Your task to perform on an android device: Go to Yahoo.com Image 0: 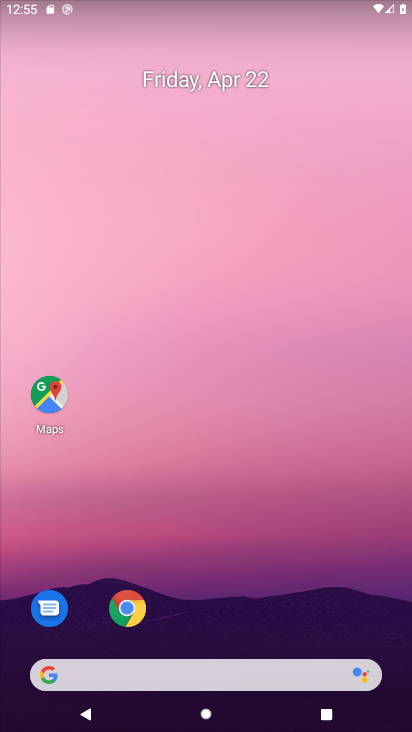
Step 0: drag from (251, 600) to (217, 117)
Your task to perform on an android device: Go to Yahoo.com Image 1: 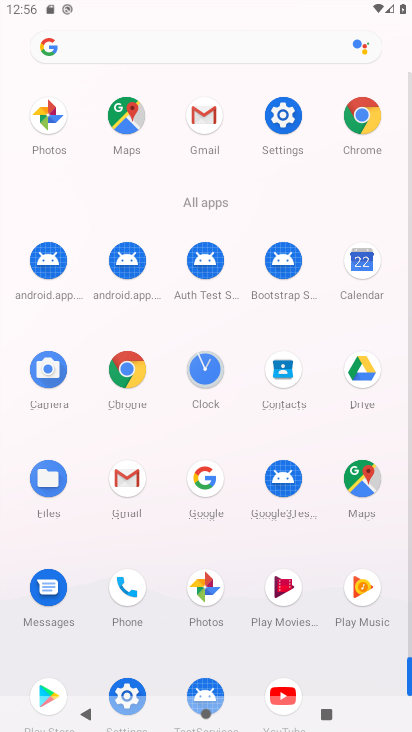
Step 1: click (357, 117)
Your task to perform on an android device: Go to Yahoo.com Image 2: 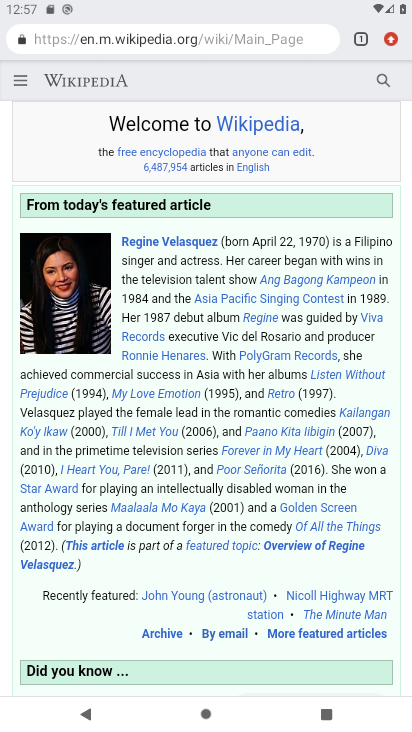
Step 2: click (397, 36)
Your task to perform on an android device: Go to Yahoo.com Image 3: 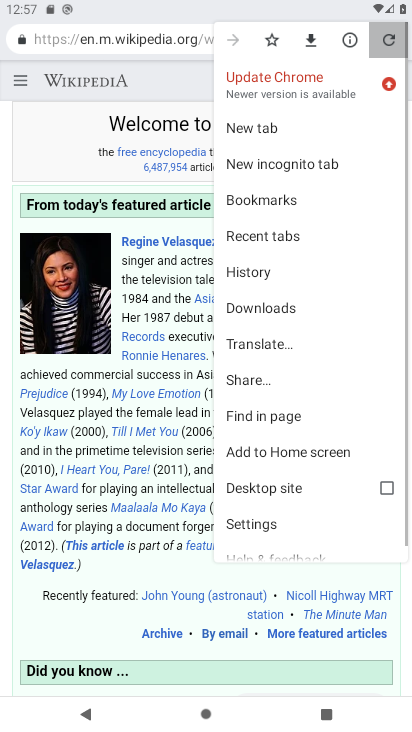
Step 3: drag from (246, 87) to (256, 125)
Your task to perform on an android device: Go to Yahoo.com Image 4: 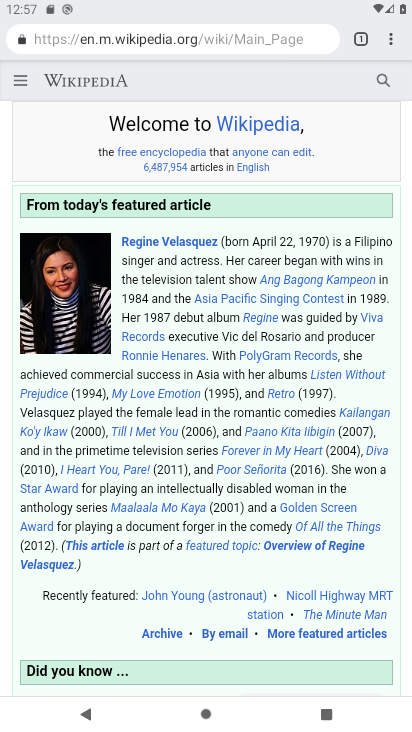
Step 4: drag from (393, 42) to (300, 134)
Your task to perform on an android device: Go to Yahoo.com Image 5: 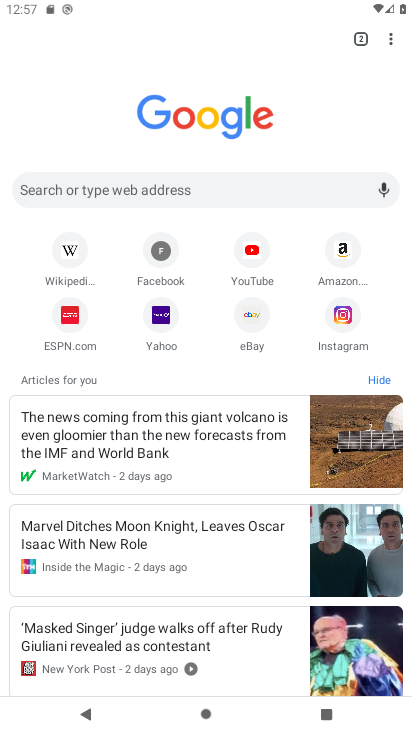
Step 5: click (167, 320)
Your task to perform on an android device: Go to Yahoo.com Image 6: 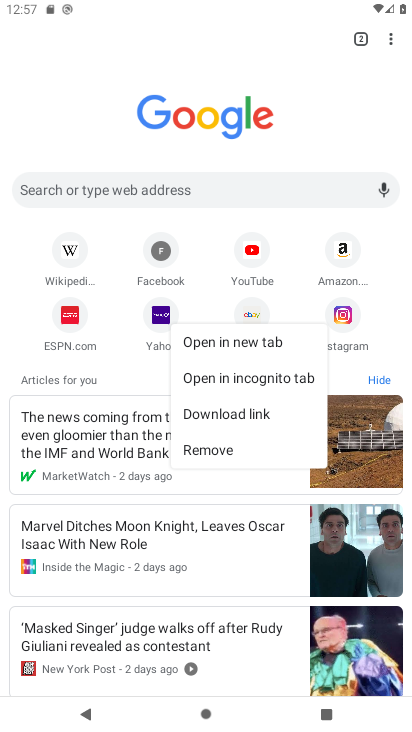
Step 6: click (164, 311)
Your task to perform on an android device: Go to Yahoo.com Image 7: 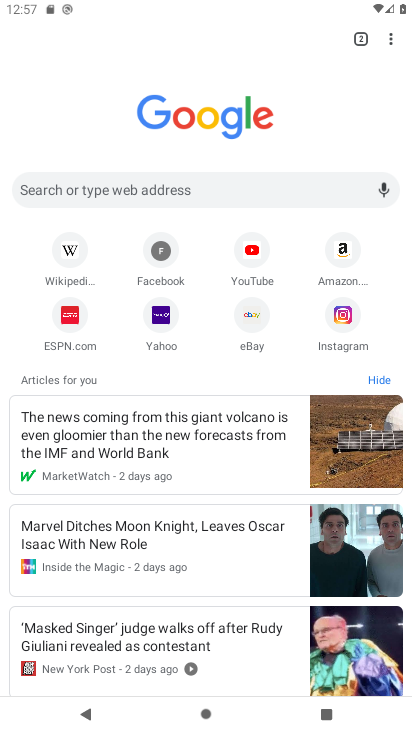
Step 7: click (164, 311)
Your task to perform on an android device: Go to Yahoo.com Image 8: 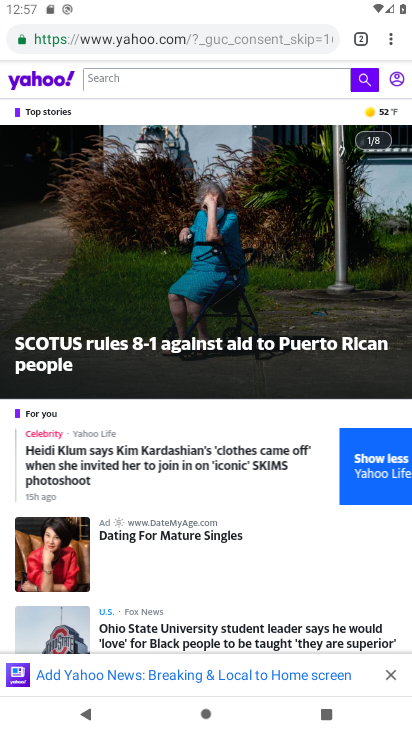
Step 8: task complete